Your task to perform on an android device: What's the weather today? Image 0: 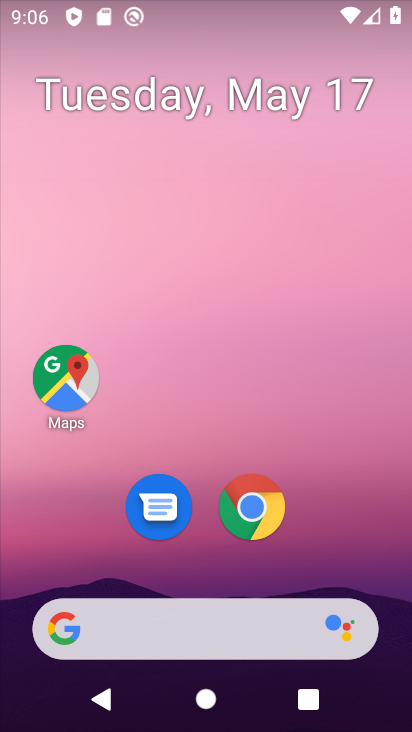
Step 0: drag from (253, 689) to (211, 256)
Your task to perform on an android device: What's the weather today? Image 1: 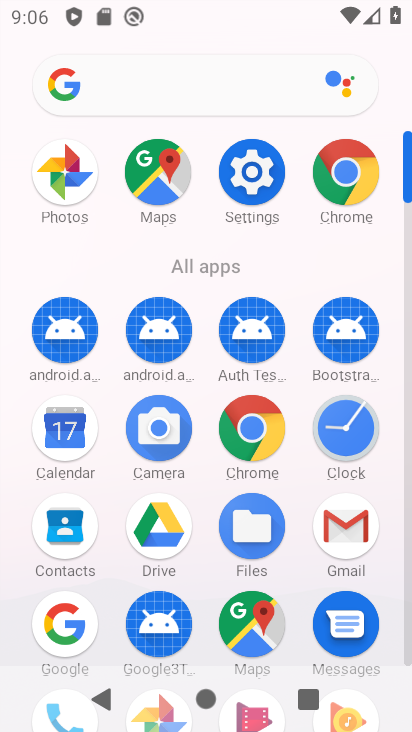
Step 1: press back button
Your task to perform on an android device: What's the weather today? Image 2: 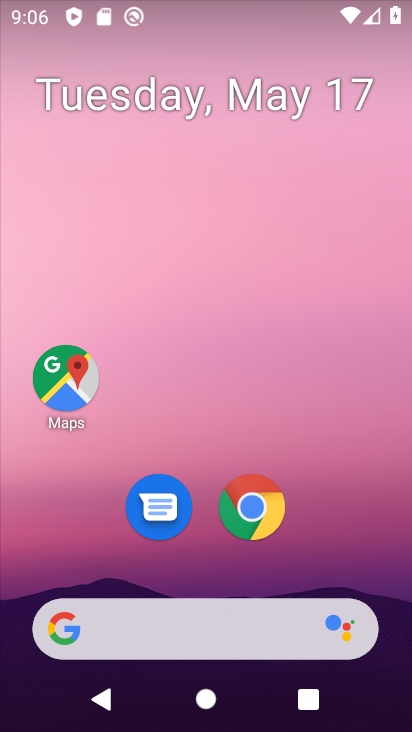
Step 2: drag from (2, 183) to (397, 338)
Your task to perform on an android device: What's the weather today? Image 3: 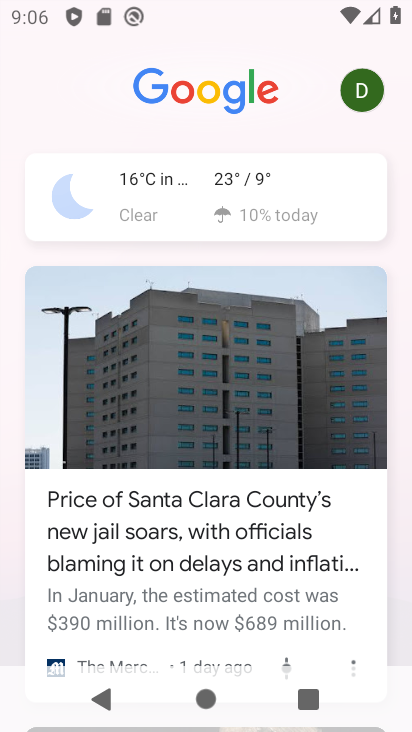
Step 3: click (208, 211)
Your task to perform on an android device: What's the weather today? Image 4: 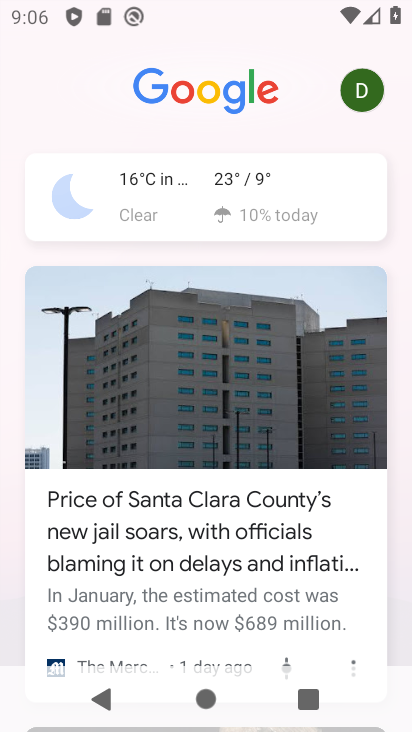
Step 4: click (209, 213)
Your task to perform on an android device: What's the weather today? Image 5: 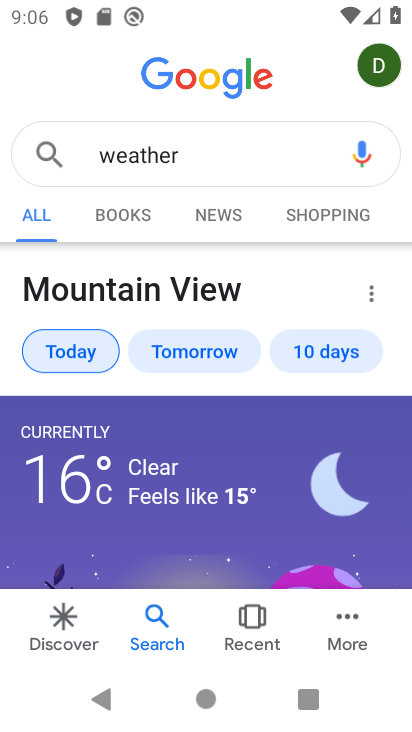
Step 5: task complete